Your task to perform on an android device: open a bookmark in the chrome app Image 0: 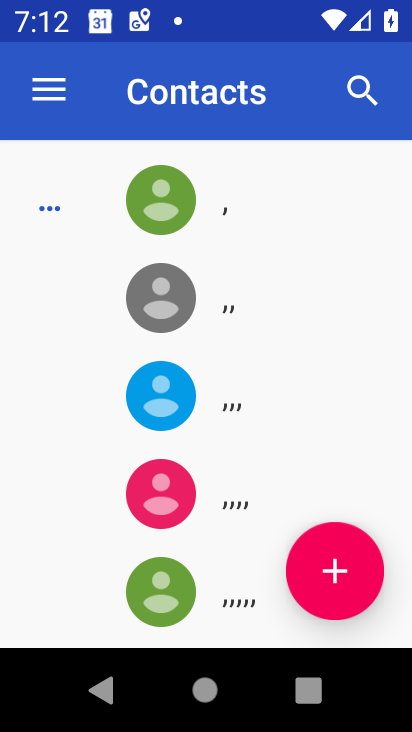
Step 0: press home button
Your task to perform on an android device: open a bookmark in the chrome app Image 1: 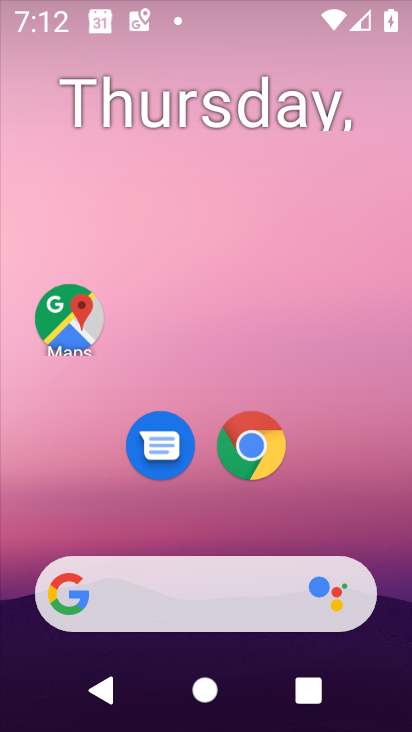
Step 1: drag from (373, 624) to (305, 98)
Your task to perform on an android device: open a bookmark in the chrome app Image 2: 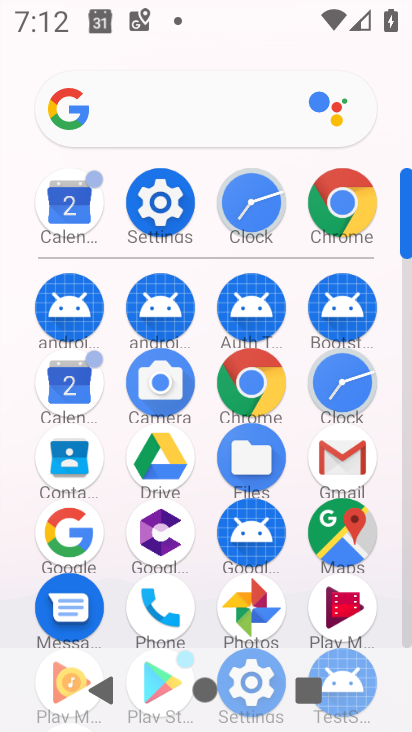
Step 2: click (338, 189)
Your task to perform on an android device: open a bookmark in the chrome app Image 3: 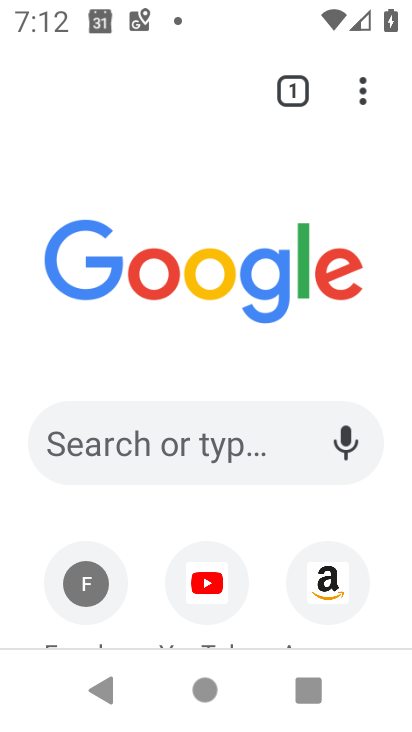
Step 3: click (368, 69)
Your task to perform on an android device: open a bookmark in the chrome app Image 4: 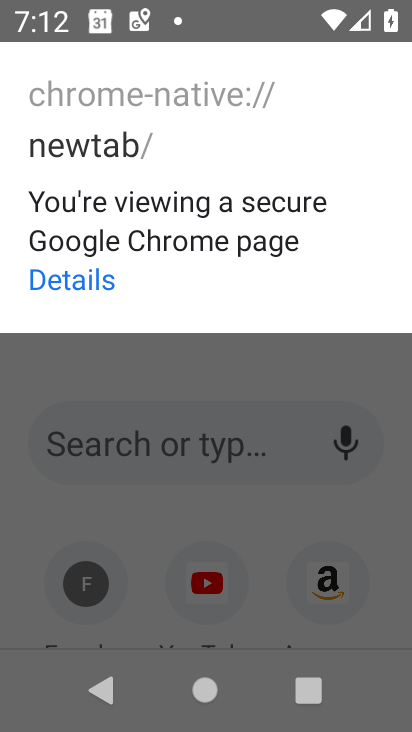
Step 4: press back button
Your task to perform on an android device: open a bookmark in the chrome app Image 5: 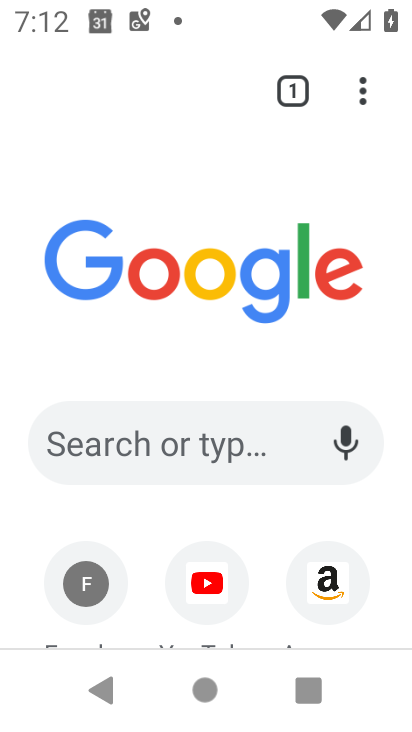
Step 5: click (362, 82)
Your task to perform on an android device: open a bookmark in the chrome app Image 6: 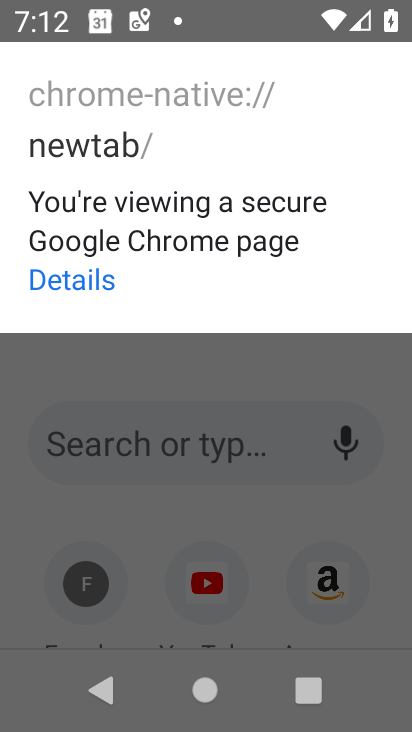
Step 6: press back button
Your task to perform on an android device: open a bookmark in the chrome app Image 7: 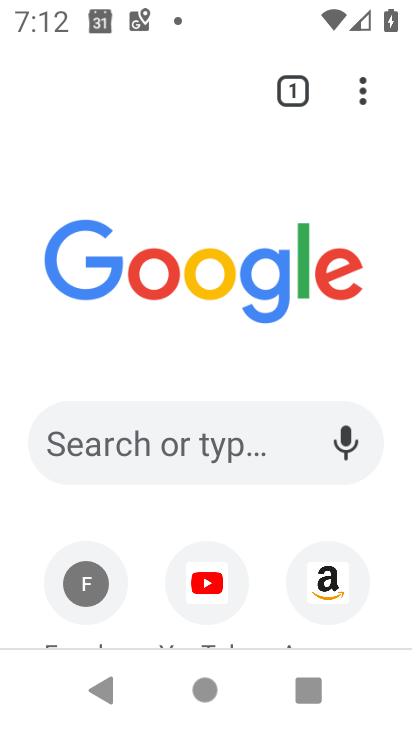
Step 7: click (362, 91)
Your task to perform on an android device: open a bookmark in the chrome app Image 8: 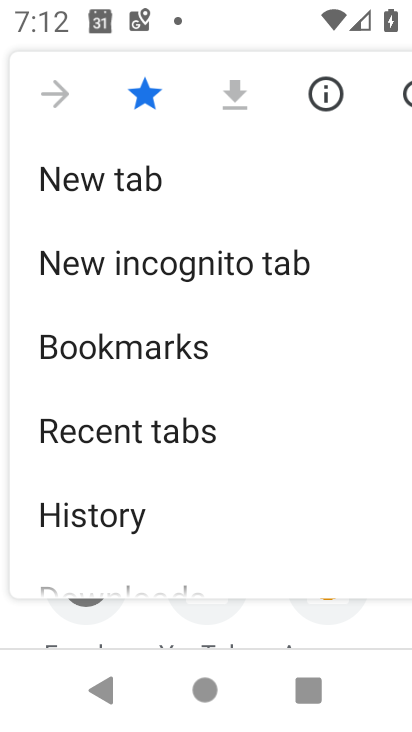
Step 8: click (76, 340)
Your task to perform on an android device: open a bookmark in the chrome app Image 9: 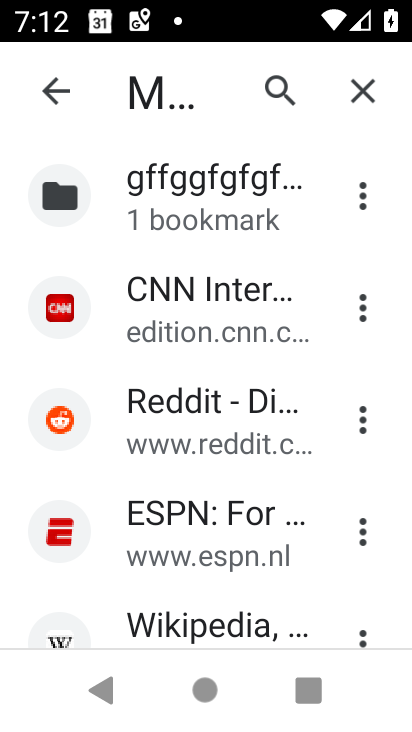
Step 9: task complete